Your task to perform on an android device: Search for Italian restaurants on Maps Image 0: 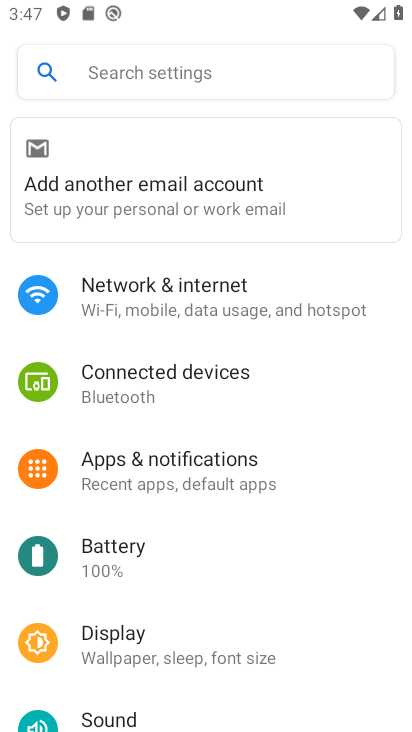
Step 0: press home button
Your task to perform on an android device: Search for Italian restaurants on Maps Image 1: 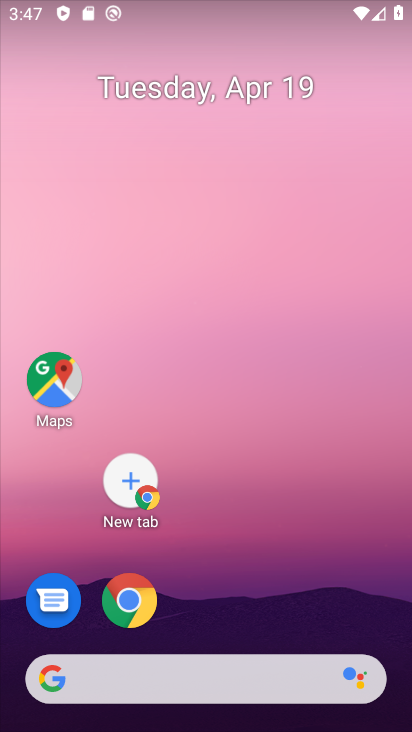
Step 1: click (47, 385)
Your task to perform on an android device: Search for Italian restaurants on Maps Image 2: 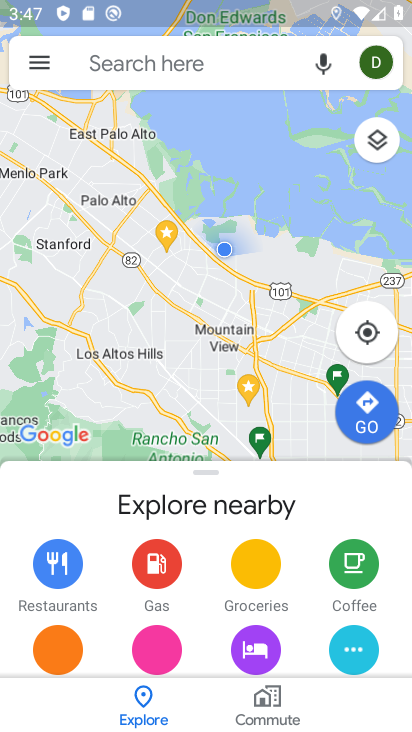
Step 2: click (121, 67)
Your task to perform on an android device: Search for Italian restaurants on Maps Image 3: 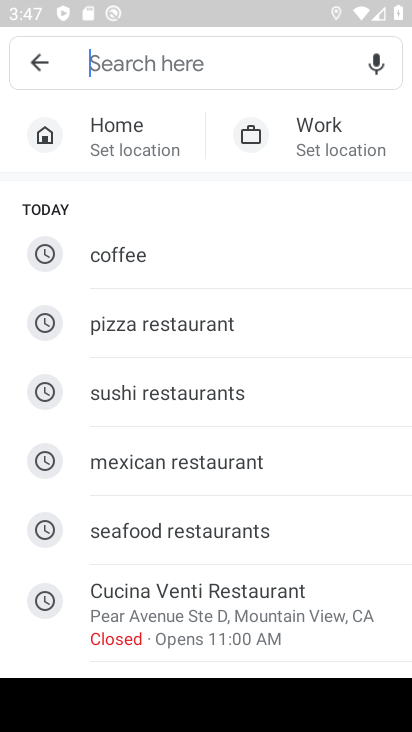
Step 3: type "italian restauirant"
Your task to perform on an android device: Search for Italian restaurants on Maps Image 4: 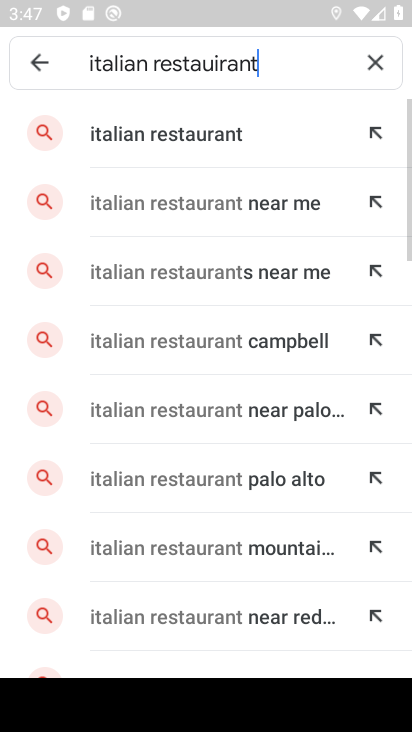
Step 4: click (165, 141)
Your task to perform on an android device: Search for Italian restaurants on Maps Image 5: 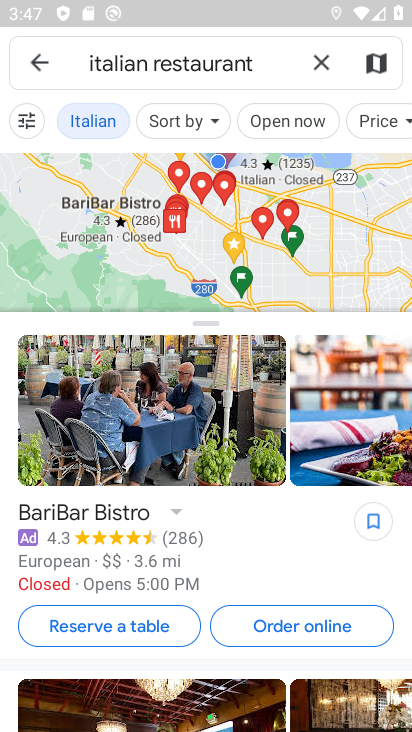
Step 5: task complete